Your task to perform on an android device: turn off javascript in the chrome app Image 0: 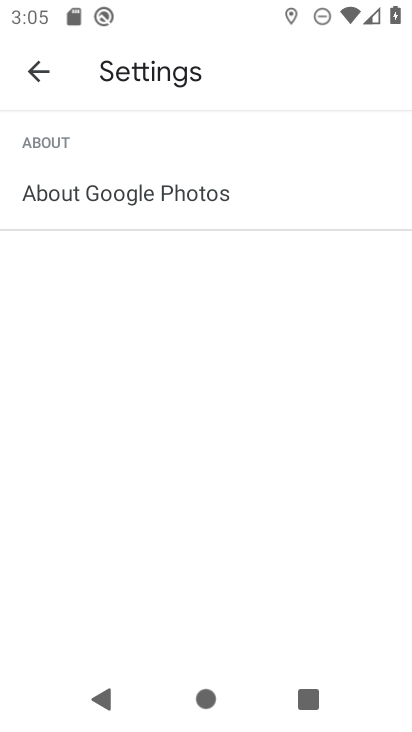
Step 0: click (408, 314)
Your task to perform on an android device: turn off javascript in the chrome app Image 1: 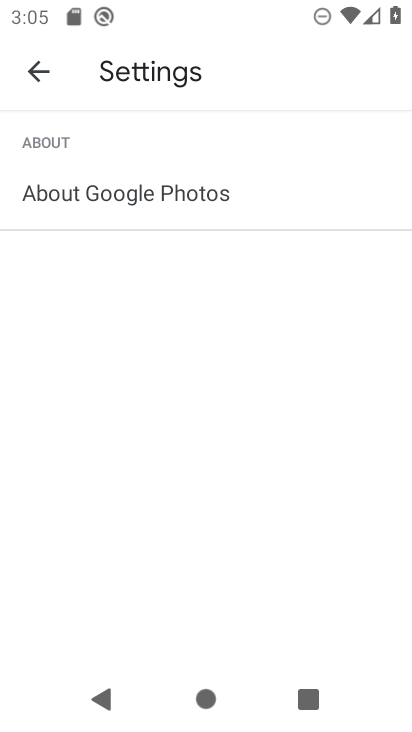
Step 1: press home button
Your task to perform on an android device: turn off javascript in the chrome app Image 2: 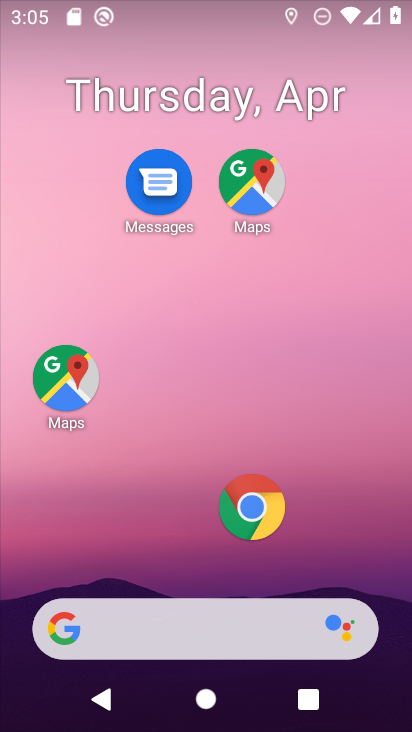
Step 2: click (239, 505)
Your task to perform on an android device: turn off javascript in the chrome app Image 3: 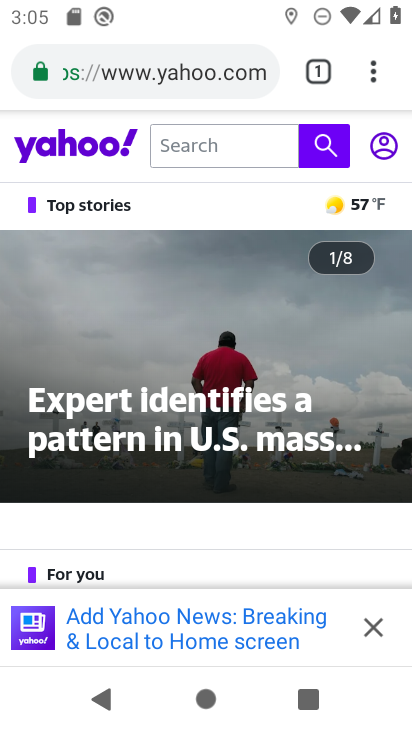
Step 3: click (367, 627)
Your task to perform on an android device: turn off javascript in the chrome app Image 4: 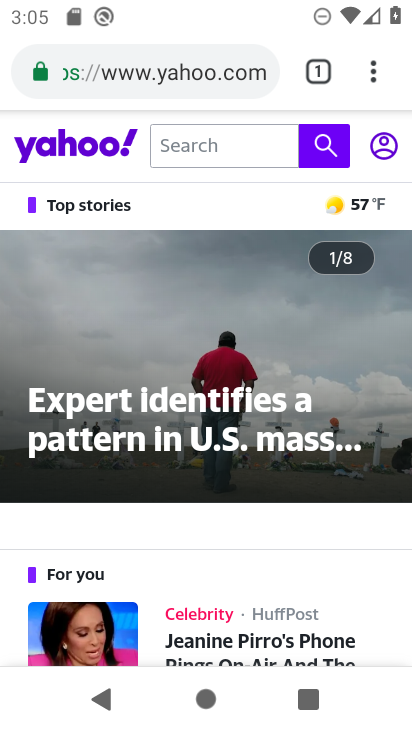
Step 4: click (369, 92)
Your task to perform on an android device: turn off javascript in the chrome app Image 5: 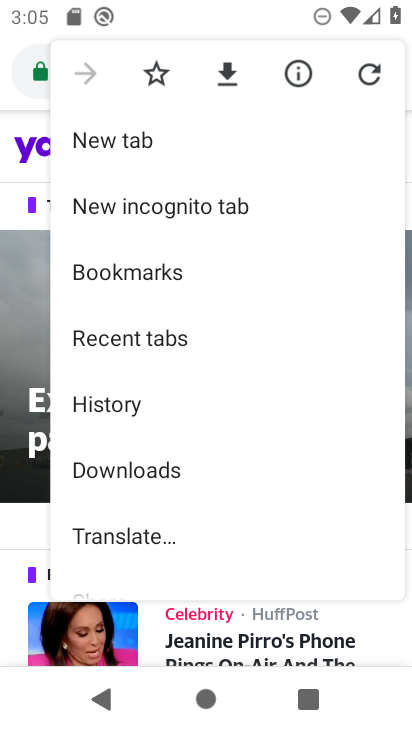
Step 5: drag from (135, 493) to (228, 185)
Your task to perform on an android device: turn off javascript in the chrome app Image 6: 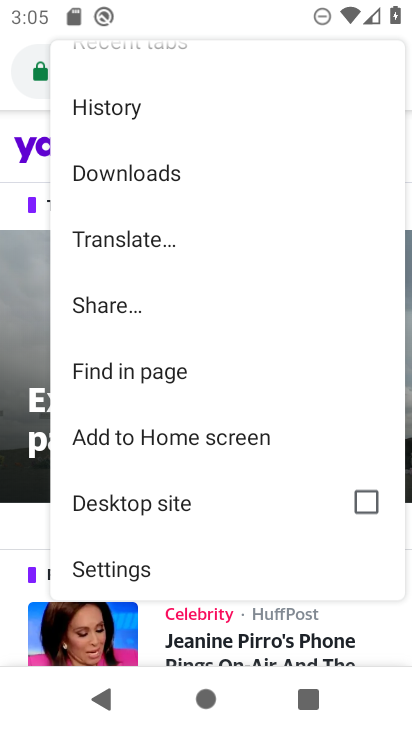
Step 6: drag from (133, 483) to (221, 219)
Your task to perform on an android device: turn off javascript in the chrome app Image 7: 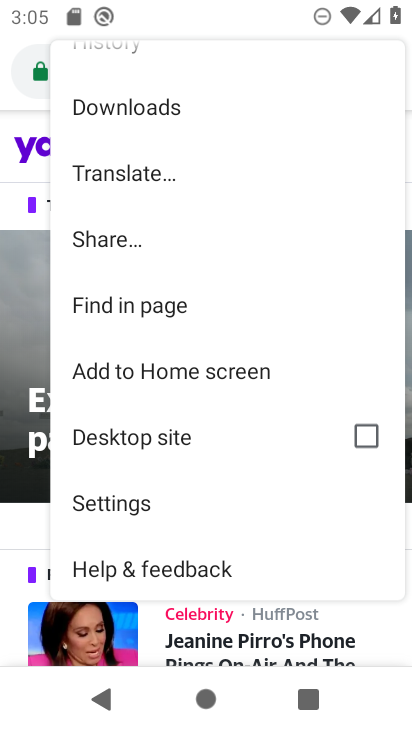
Step 7: click (125, 503)
Your task to perform on an android device: turn off javascript in the chrome app Image 8: 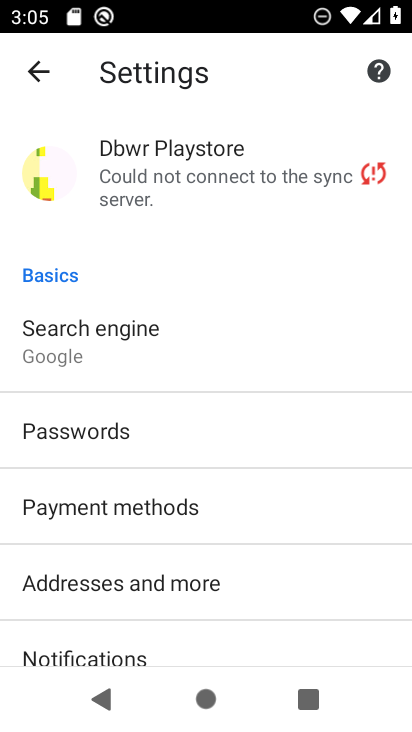
Step 8: drag from (103, 551) to (241, 64)
Your task to perform on an android device: turn off javascript in the chrome app Image 9: 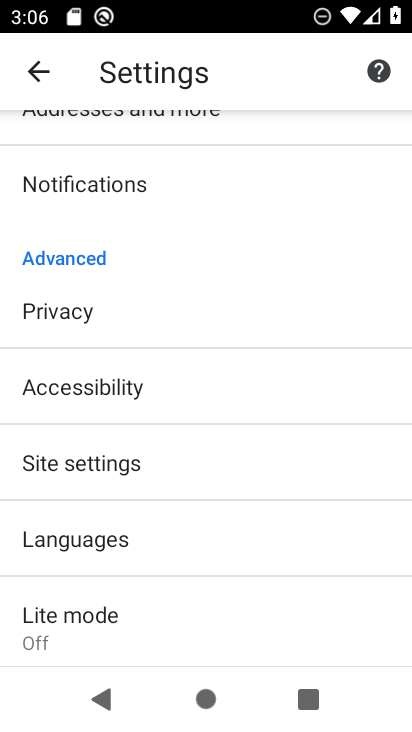
Step 9: click (93, 466)
Your task to perform on an android device: turn off javascript in the chrome app Image 10: 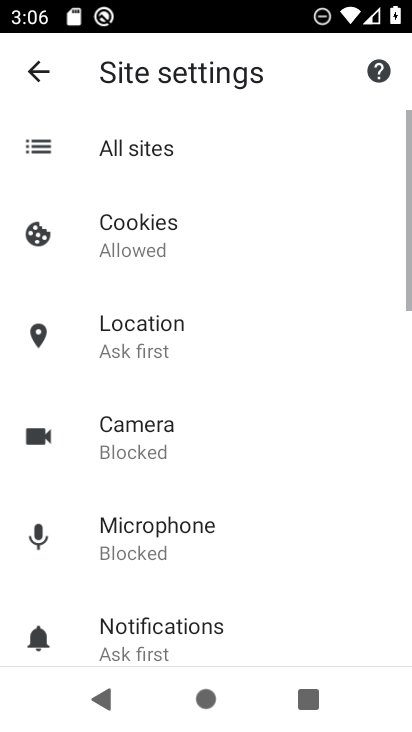
Step 10: drag from (135, 566) to (211, 224)
Your task to perform on an android device: turn off javascript in the chrome app Image 11: 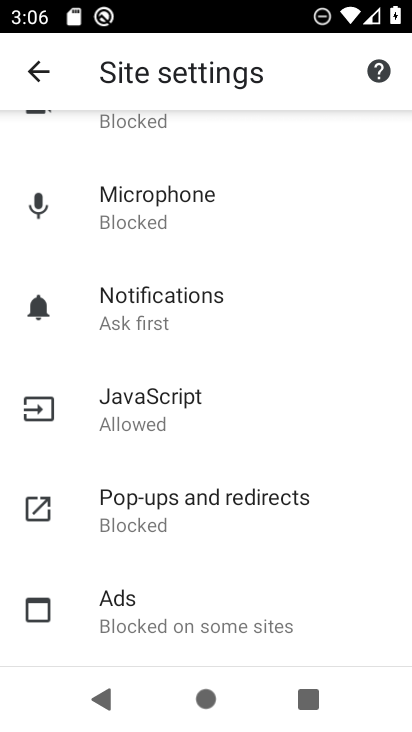
Step 11: click (168, 417)
Your task to perform on an android device: turn off javascript in the chrome app Image 12: 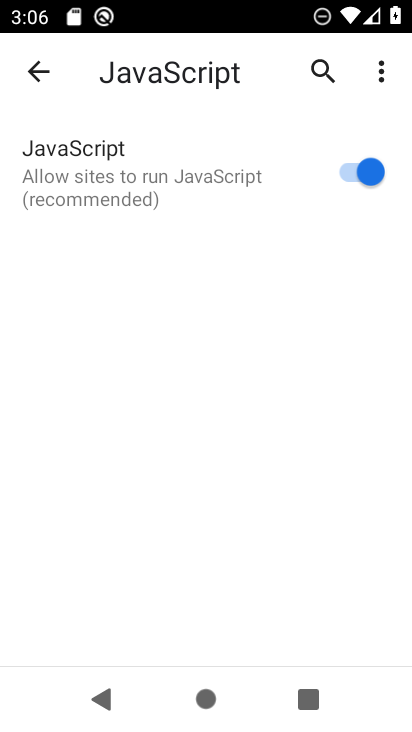
Step 12: click (343, 167)
Your task to perform on an android device: turn off javascript in the chrome app Image 13: 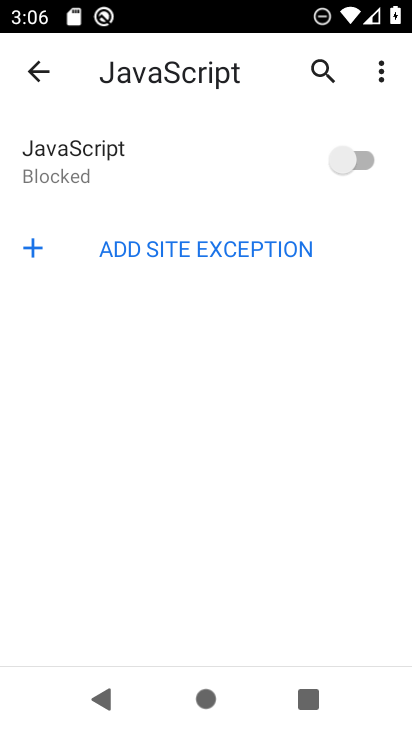
Step 13: task complete